Your task to perform on an android device: open wifi settings Image 0: 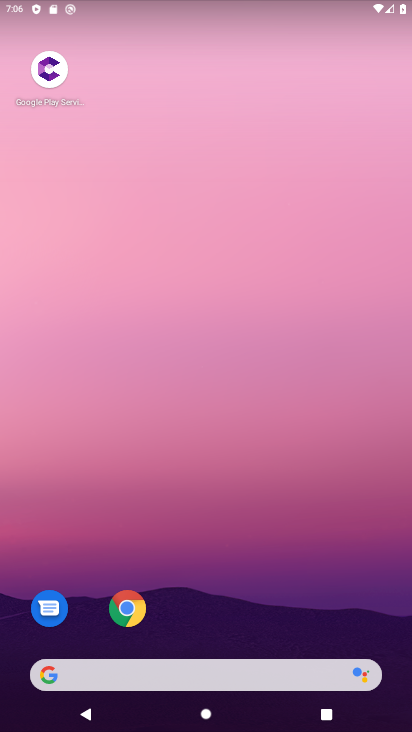
Step 0: drag from (246, 41) to (235, 495)
Your task to perform on an android device: open wifi settings Image 1: 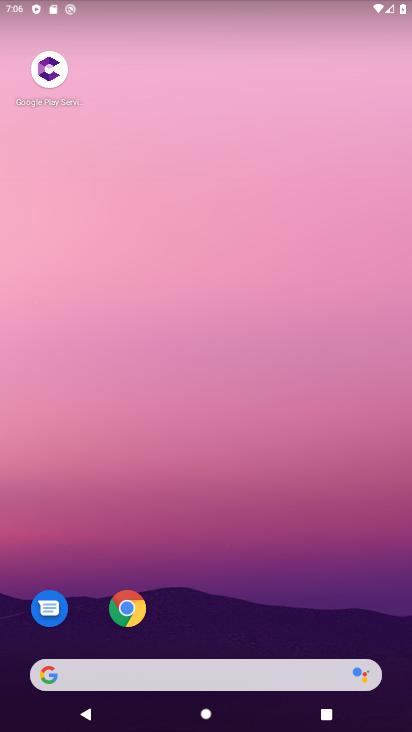
Step 1: drag from (302, 6) to (217, 465)
Your task to perform on an android device: open wifi settings Image 2: 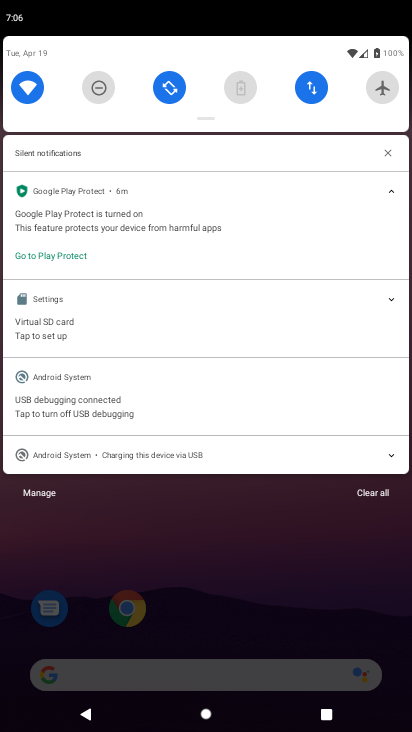
Step 2: click (32, 91)
Your task to perform on an android device: open wifi settings Image 3: 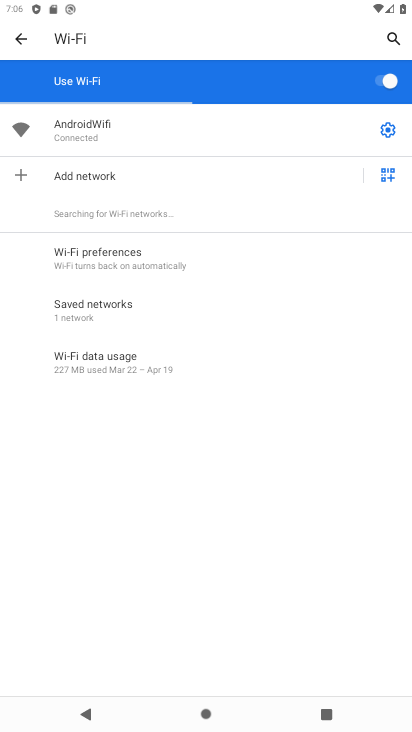
Step 3: task complete